Your task to perform on an android device: empty trash in google photos Image 0: 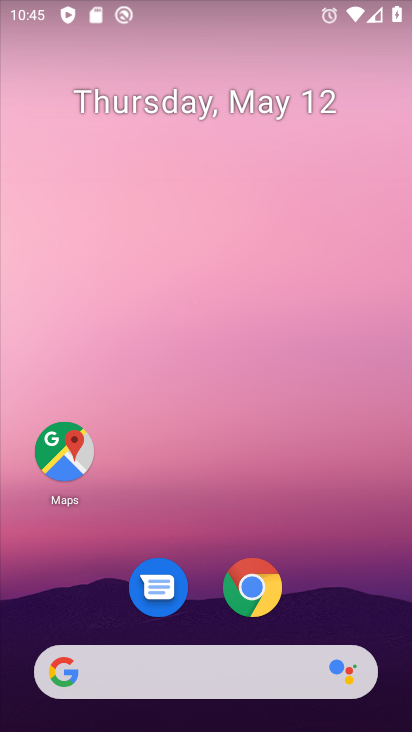
Step 0: drag from (352, 577) to (266, 36)
Your task to perform on an android device: empty trash in google photos Image 1: 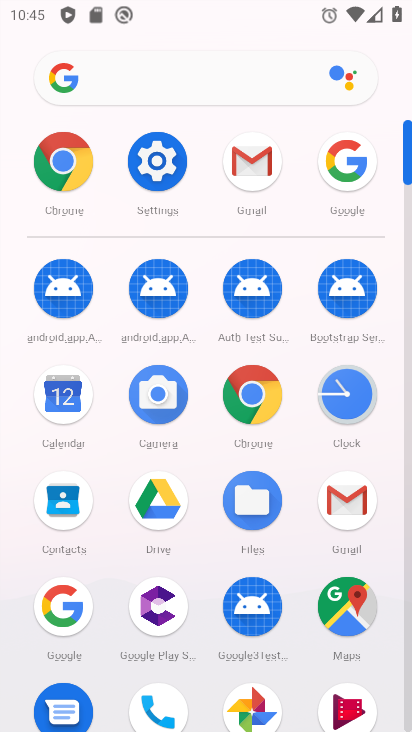
Step 1: click (268, 712)
Your task to perform on an android device: empty trash in google photos Image 2: 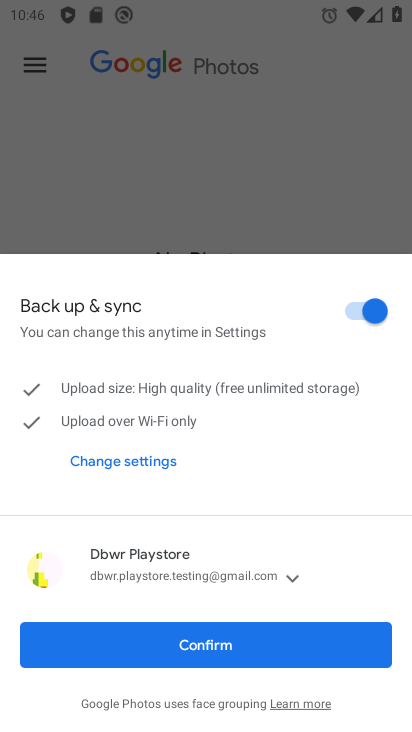
Step 2: click (215, 635)
Your task to perform on an android device: empty trash in google photos Image 3: 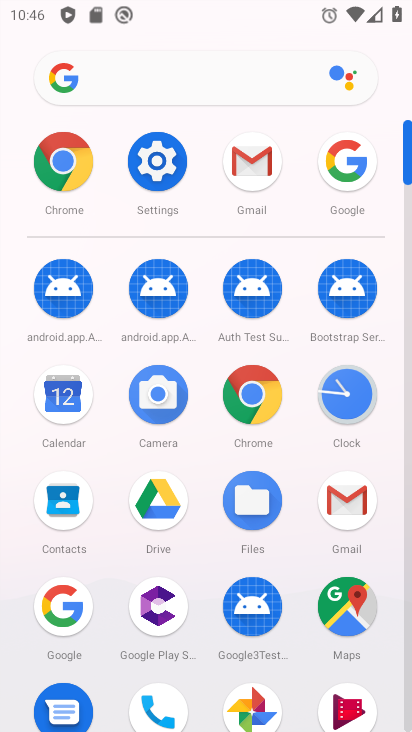
Step 3: click (267, 725)
Your task to perform on an android device: empty trash in google photos Image 4: 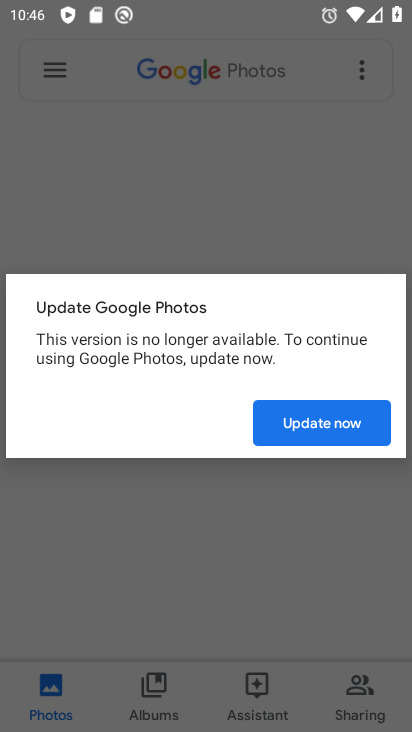
Step 4: click (328, 440)
Your task to perform on an android device: empty trash in google photos Image 5: 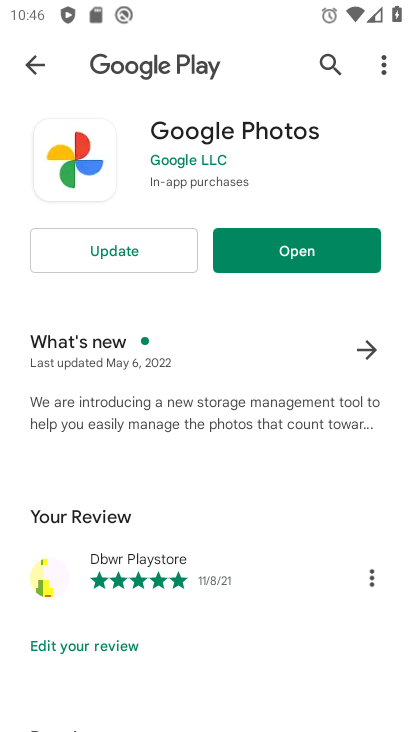
Step 5: click (140, 249)
Your task to perform on an android device: empty trash in google photos Image 6: 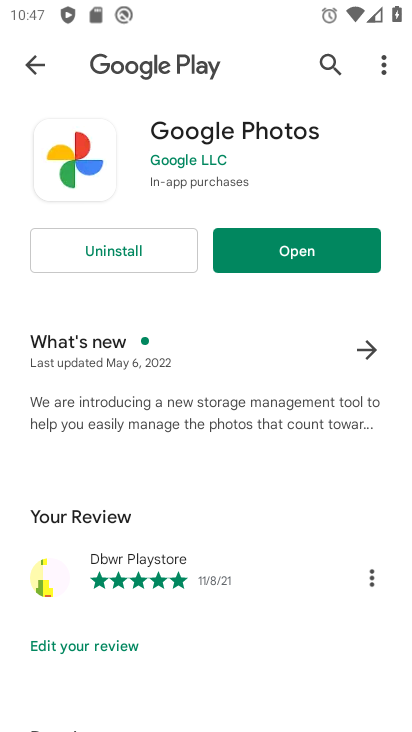
Step 6: click (248, 251)
Your task to perform on an android device: empty trash in google photos Image 7: 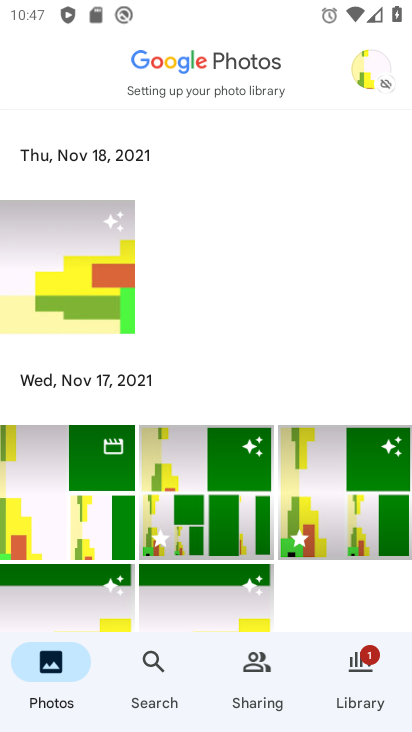
Step 7: click (382, 75)
Your task to perform on an android device: empty trash in google photos Image 8: 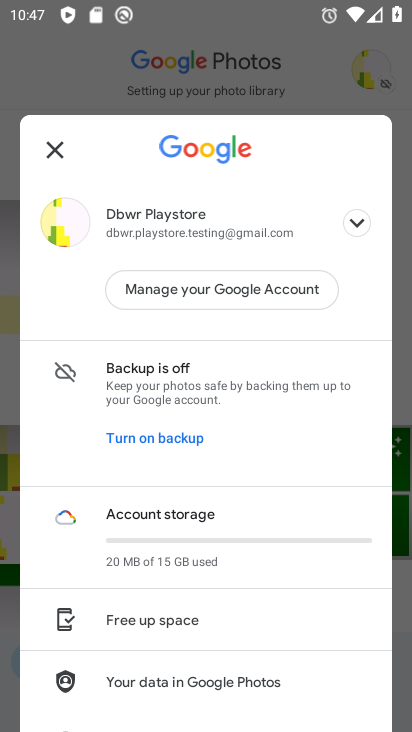
Step 8: task complete